Your task to perform on an android device: Search for seafood restaurants on Google Maps Image 0: 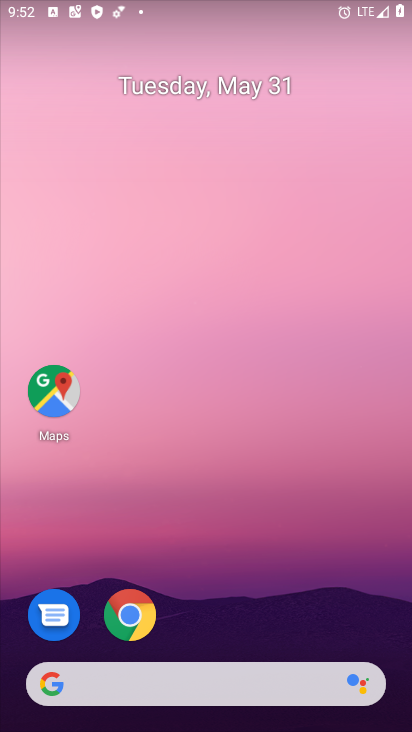
Step 0: click (55, 389)
Your task to perform on an android device: Search for seafood restaurants on Google Maps Image 1: 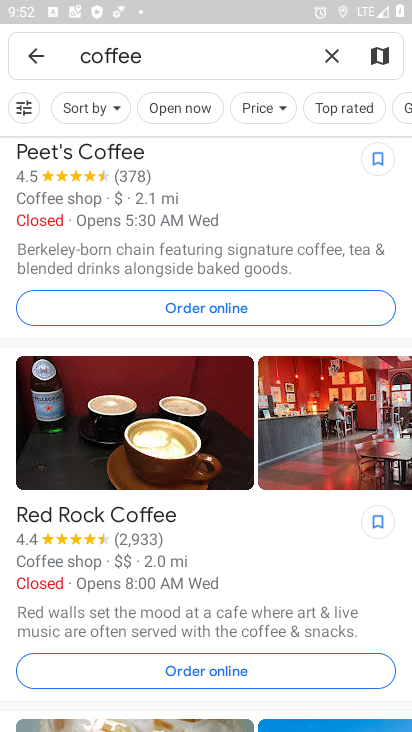
Step 1: click (326, 54)
Your task to perform on an android device: Search for seafood restaurants on Google Maps Image 2: 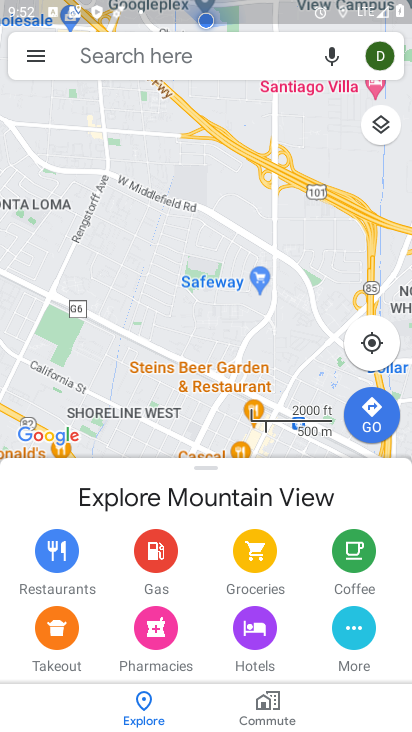
Step 2: click (127, 58)
Your task to perform on an android device: Search for seafood restaurants on Google Maps Image 3: 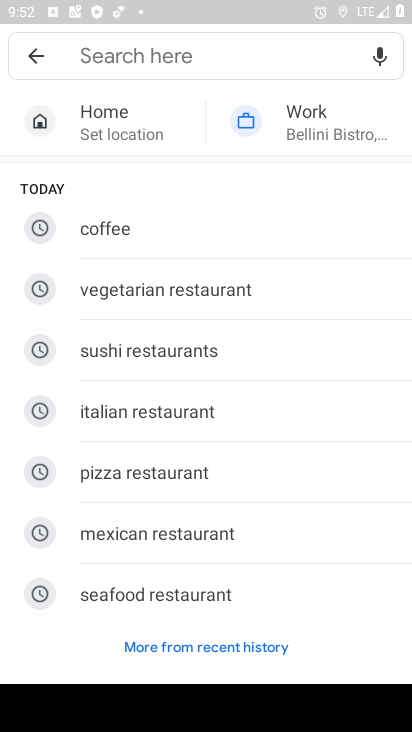
Step 3: type "seafood restaurants"
Your task to perform on an android device: Search for seafood restaurants on Google Maps Image 4: 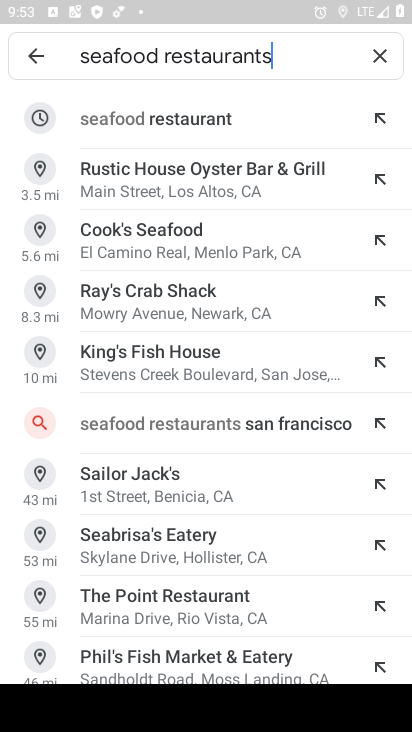
Step 4: click (144, 111)
Your task to perform on an android device: Search for seafood restaurants on Google Maps Image 5: 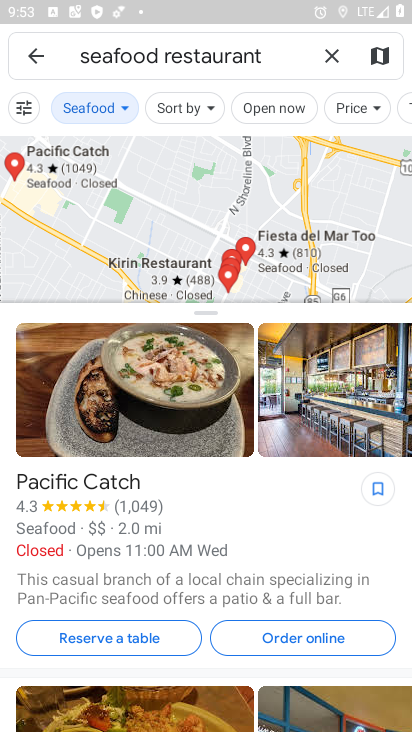
Step 5: drag from (203, 589) to (205, 207)
Your task to perform on an android device: Search for seafood restaurants on Google Maps Image 6: 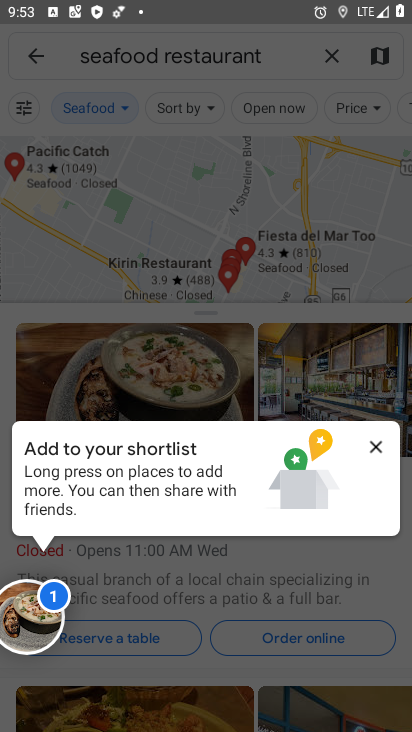
Step 6: click (373, 442)
Your task to perform on an android device: Search for seafood restaurants on Google Maps Image 7: 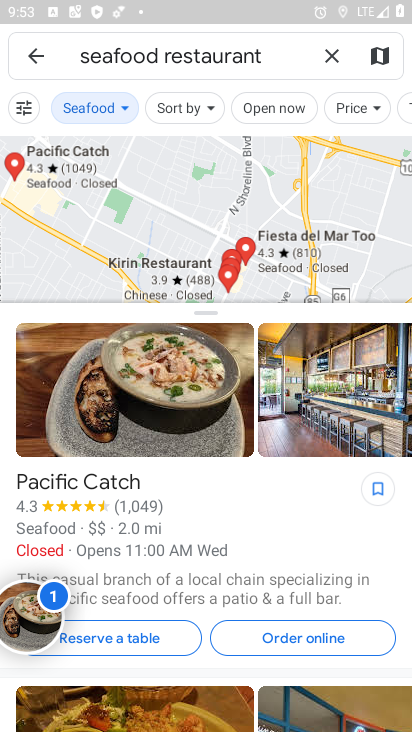
Step 7: task complete